Your task to perform on an android device: set the stopwatch Image 0: 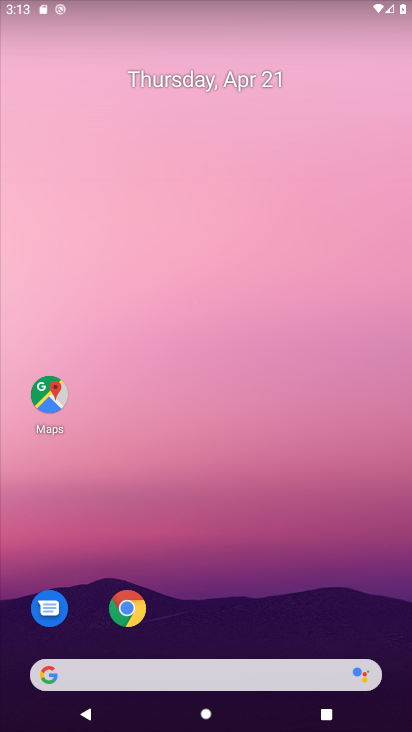
Step 0: drag from (300, 613) to (260, 57)
Your task to perform on an android device: set the stopwatch Image 1: 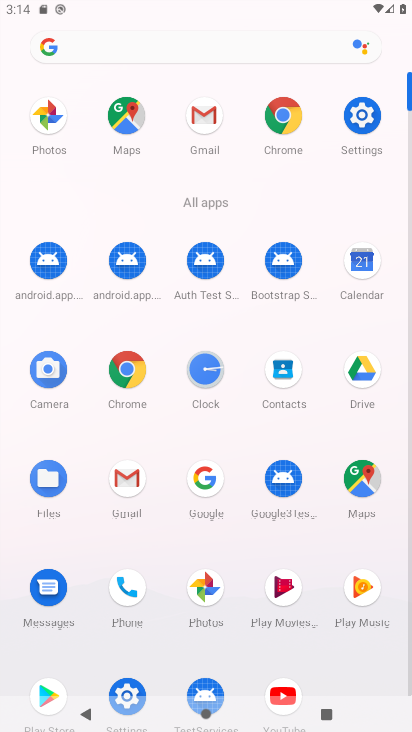
Step 1: click (196, 383)
Your task to perform on an android device: set the stopwatch Image 2: 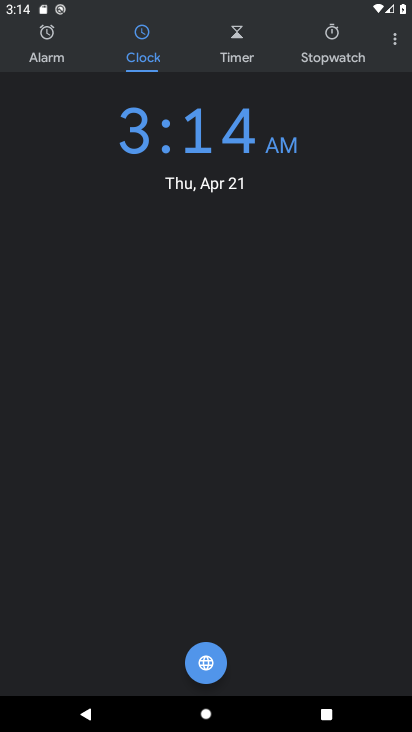
Step 2: click (319, 50)
Your task to perform on an android device: set the stopwatch Image 3: 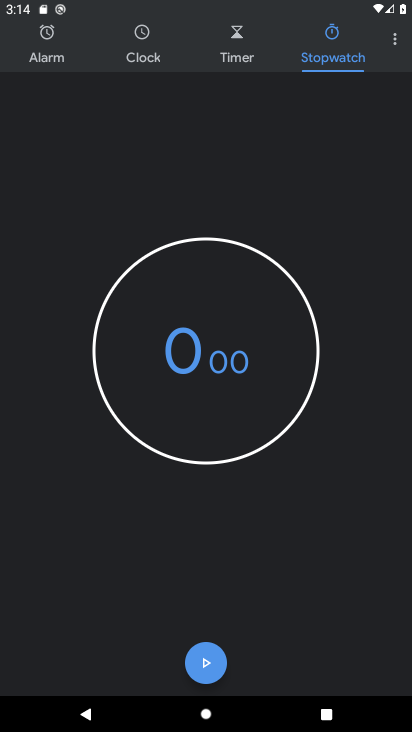
Step 3: click (211, 656)
Your task to perform on an android device: set the stopwatch Image 4: 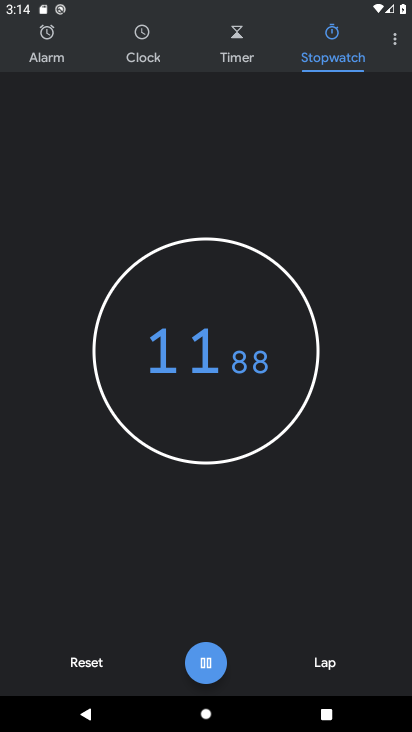
Step 4: task complete